Your task to perform on an android device: turn off translation in the chrome app Image 0: 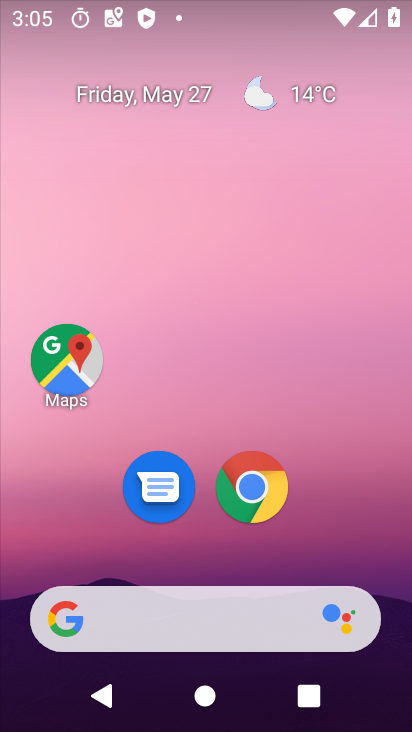
Step 0: click (261, 487)
Your task to perform on an android device: turn off translation in the chrome app Image 1: 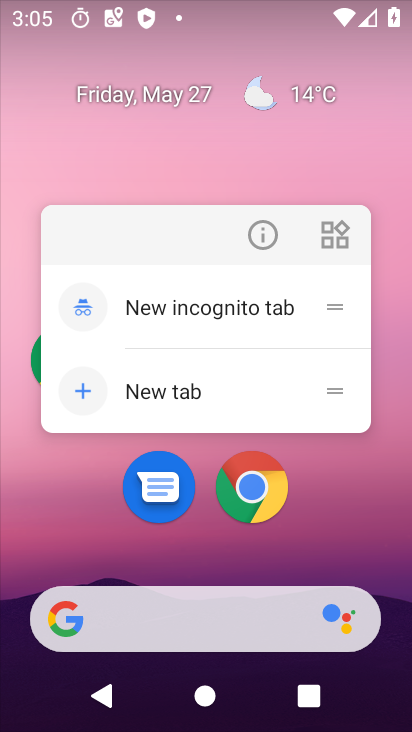
Step 1: click (261, 487)
Your task to perform on an android device: turn off translation in the chrome app Image 2: 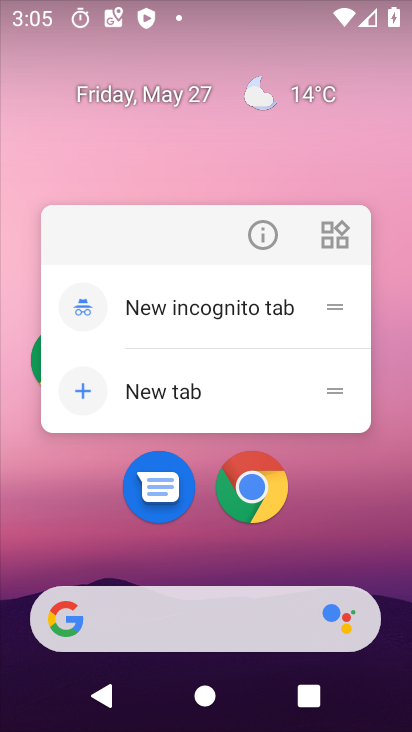
Step 2: click (332, 500)
Your task to perform on an android device: turn off translation in the chrome app Image 3: 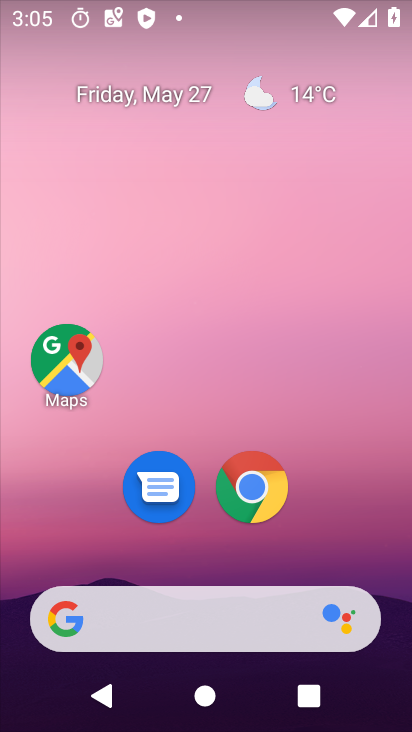
Step 3: drag from (332, 500) to (337, 48)
Your task to perform on an android device: turn off translation in the chrome app Image 4: 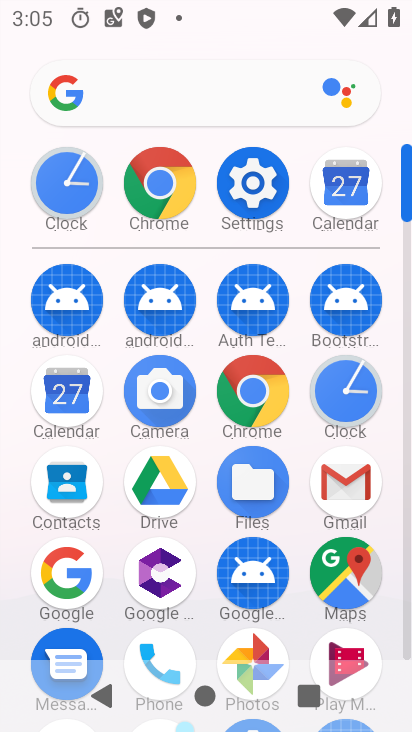
Step 4: click (260, 390)
Your task to perform on an android device: turn off translation in the chrome app Image 5: 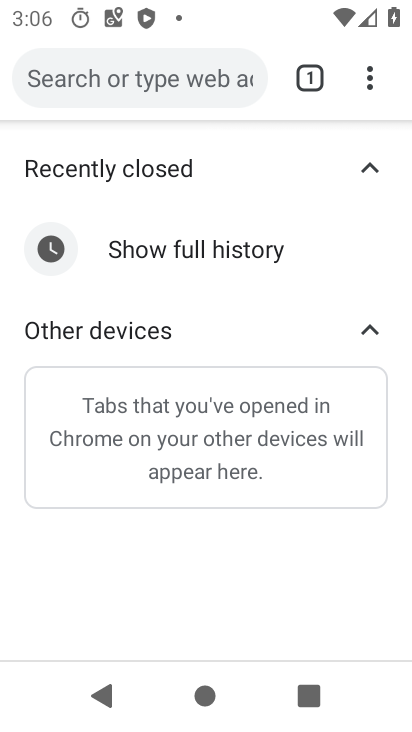
Step 5: drag from (377, 75) to (154, 551)
Your task to perform on an android device: turn off translation in the chrome app Image 6: 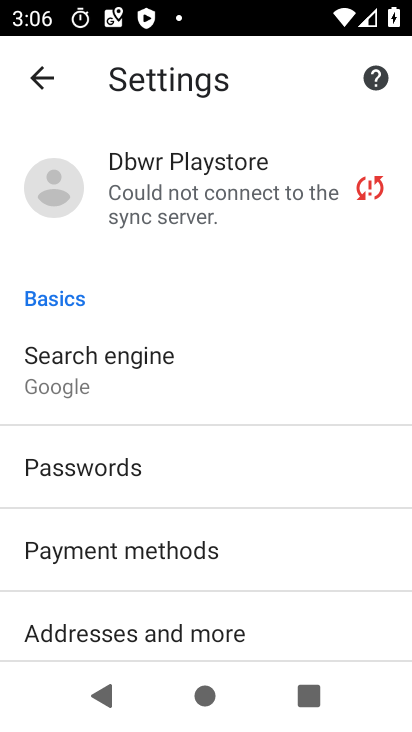
Step 6: drag from (227, 617) to (295, 82)
Your task to perform on an android device: turn off translation in the chrome app Image 7: 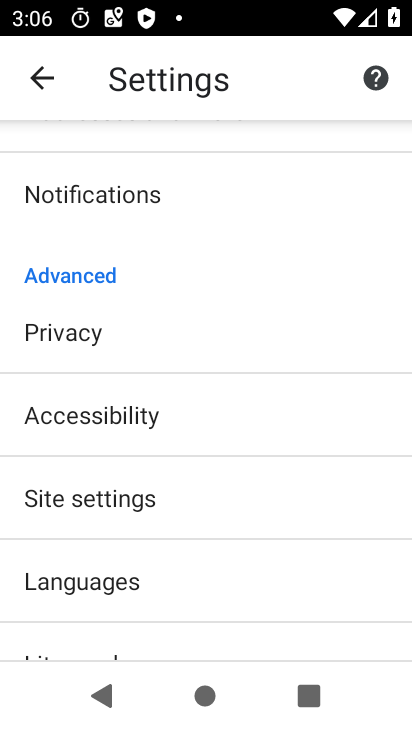
Step 7: drag from (220, 566) to (284, 126)
Your task to perform on an android device: turn off translation in the chrome app Image 8: 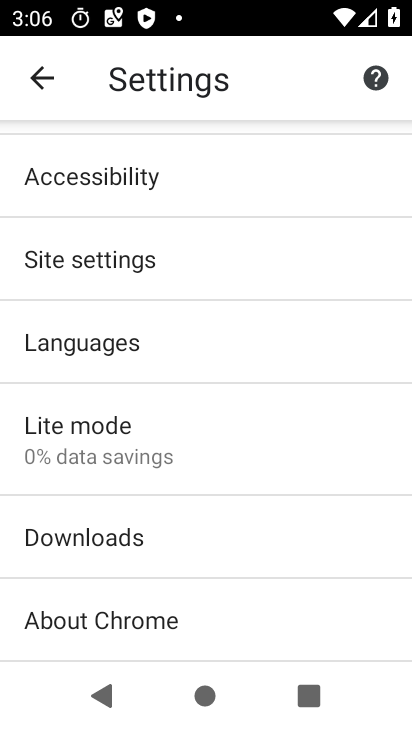
Step 8: click (131, 347)
Your task to perform on an android device: turn off translation in the chrome app Image 9: 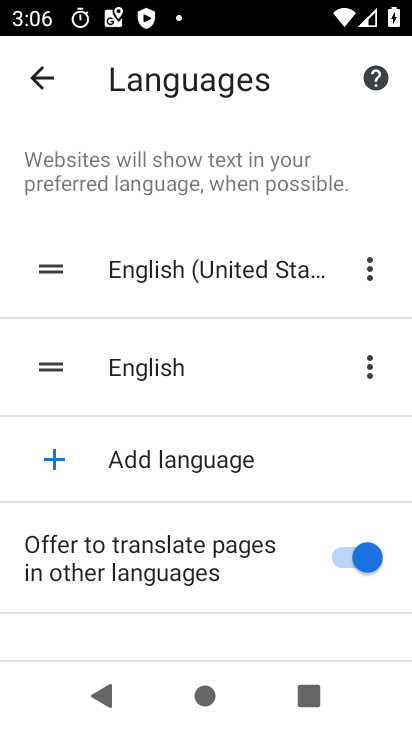
Step 9: click (356, 561)
Your task to perform on an android device: turn off translation in the chrome app Image 10: 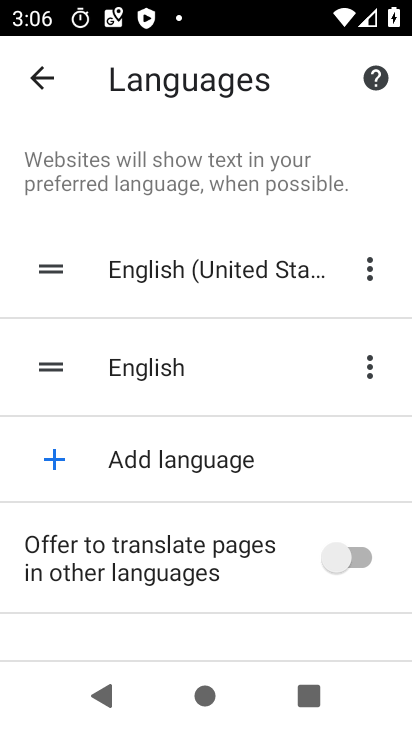
Step 10: task complete